Your task to perform on an android device: Search for Mexican restaurants on Maps Image 0: 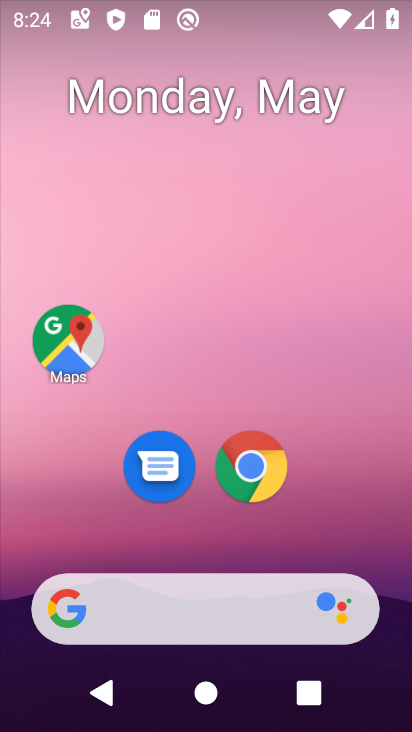
Step 0: press home button
Your task to perform on an android device: Search for Mexican restaurants on Maps Image 1: 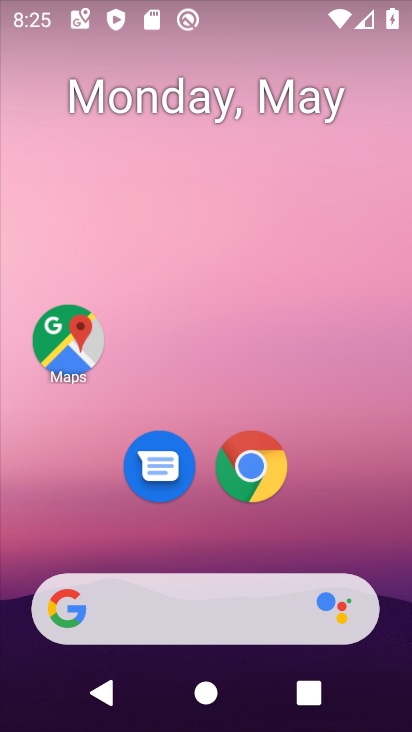
Step 1: drag from (257, 651) to (358, 2)
Your task to perform on an android device: Search for Mexican restaurants on Maps Image 2: 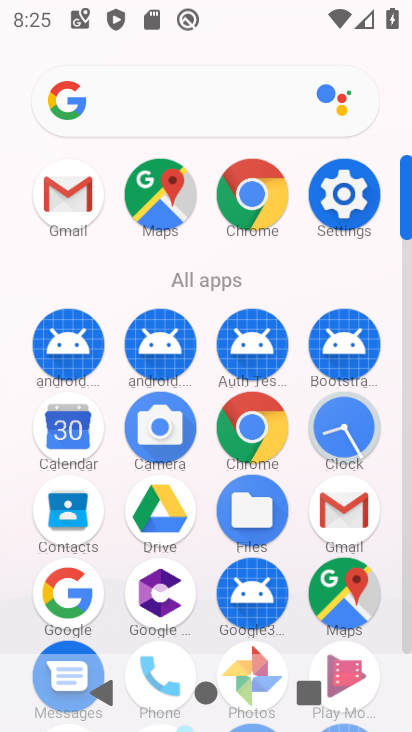
Step 2: click (145, 195)
Your task to perform on an android device: Search for Mexican restaurants on Maps Image 3: 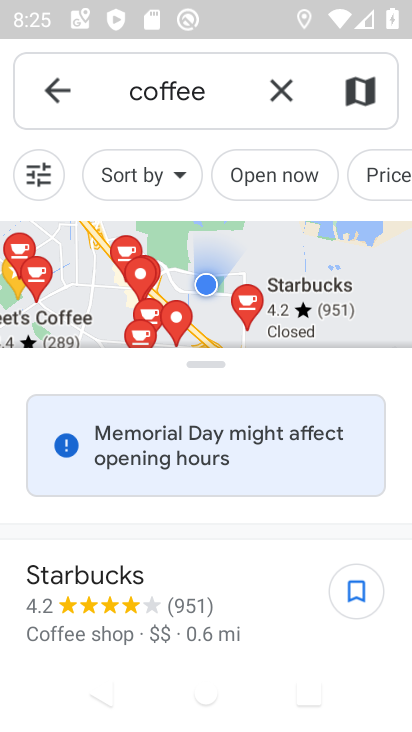
Step 3: click (275, 85)
Your task to perform on an android device: Search for Mexican restaurants on Maps Image 4: 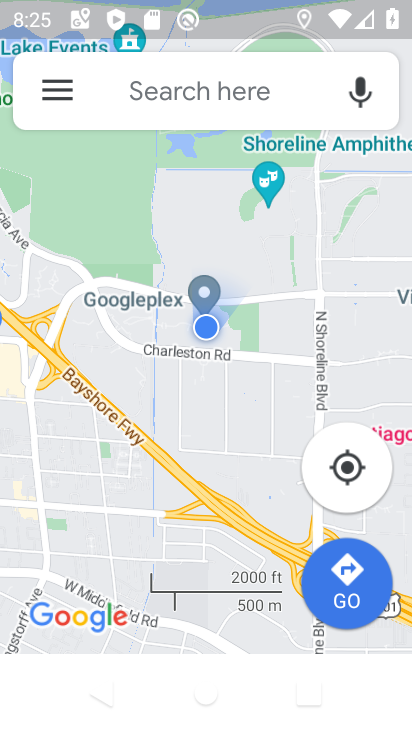
Step 4: click (172, 86)
Your task to perform on an android device: Search for Mexican restaurants on Maps Image 5: 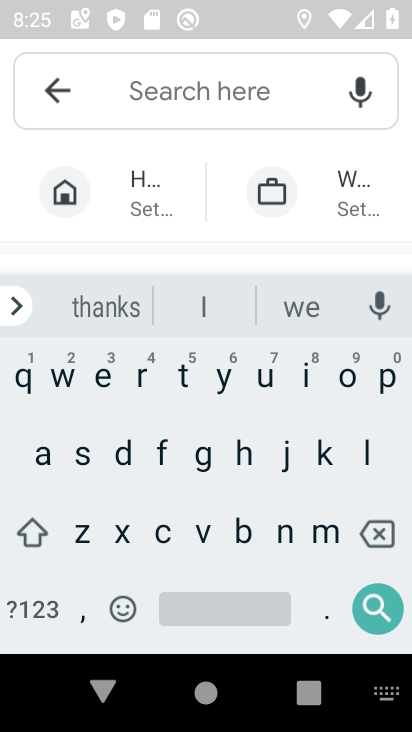
Step 5: click (313, 534)
Your task to perform on an android device: Search for Mexican restaurants on Maps Image 6: 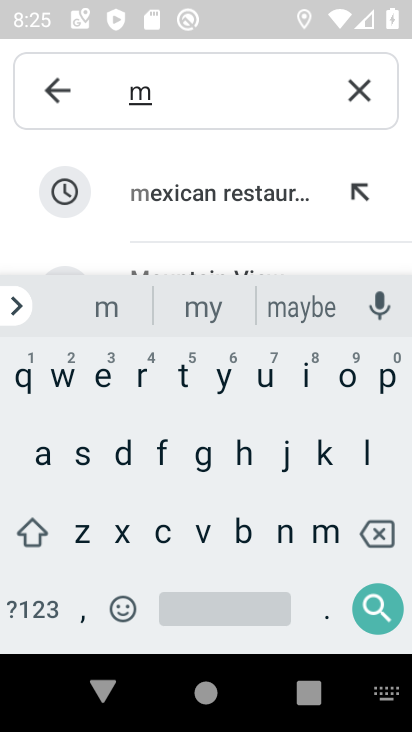
Step 6: click (200, 184)
Your task to perform on an android device: Search for Mexican restaurants on Maps Image 7: 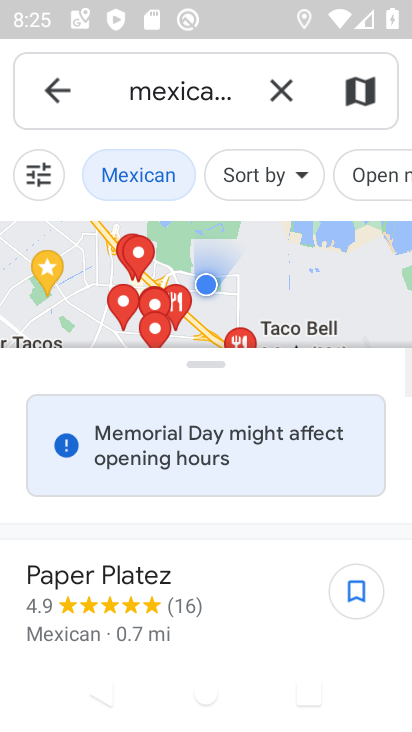
Step 7: click (135, 265)
Your task to perform on an android device: Search for Mexican restaurants on Maps Image 8: 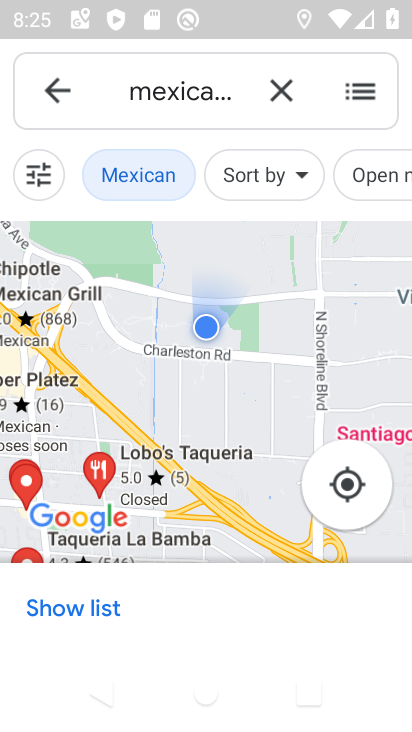
Step 8: task complete